Your task to perform on an android device: Open calendar and show me the first week of next month Image 0: 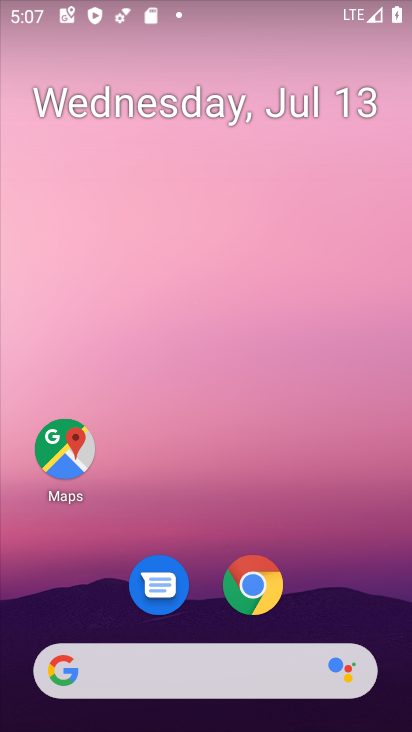
Step 0: drag from (336, 579) to (379, 89)
Your task to perform on an android device: Open calendar and show me the first week of next month Image 1: 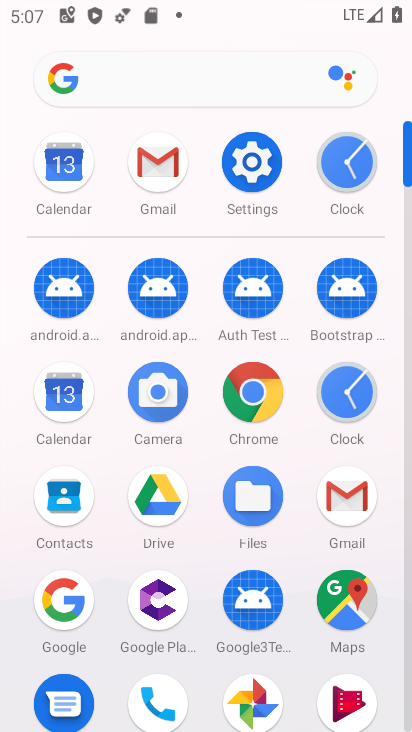
Step 1: click (64, 164)
Your task to perform on an android device: Open calendar and show me the first week of next month Image 2: 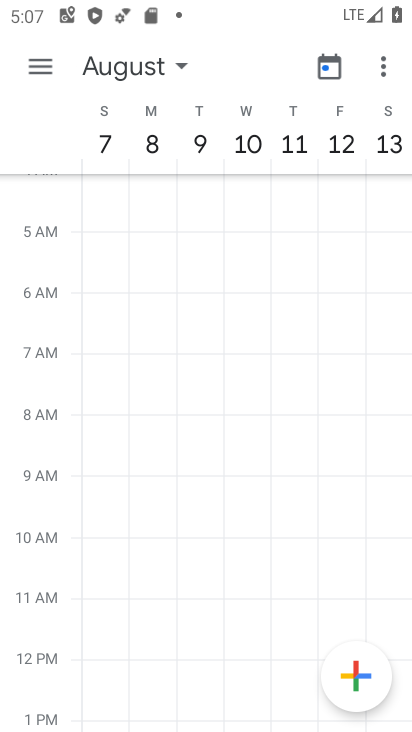
Step 2: task complete